Your task to perform on an android device: Go to Amazon Image 0: 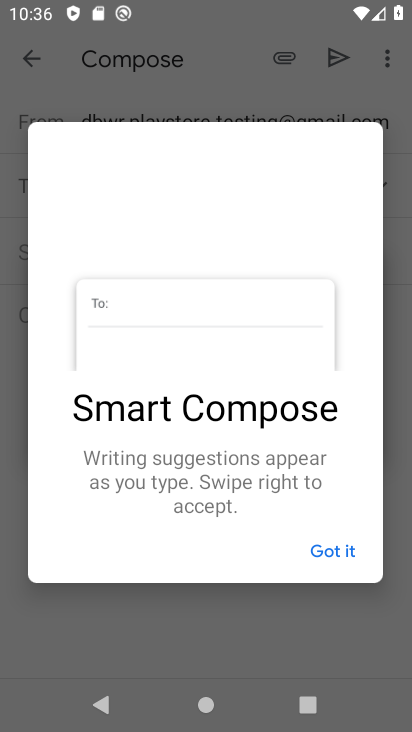
Step 0: press home button
Your task to perform on an android device: Go to Amazon Image 1: 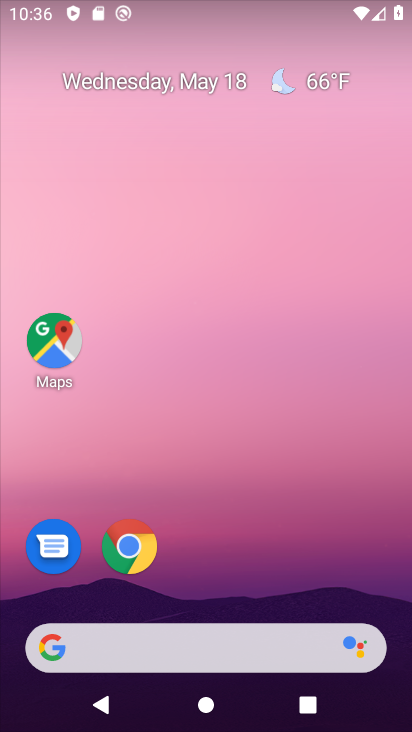
Step 1: click (128, 546)
Your task to perform on an android device: Go to Amazon Image 2: 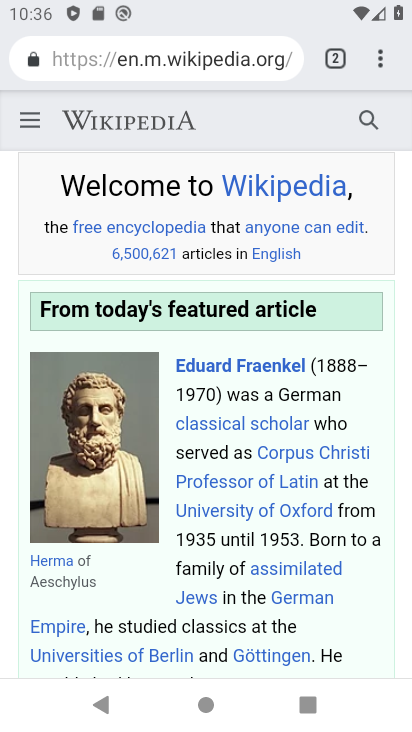
Step 2: click (380, 64)
Your task to perform on an android device: Go to Amazon Image 3: 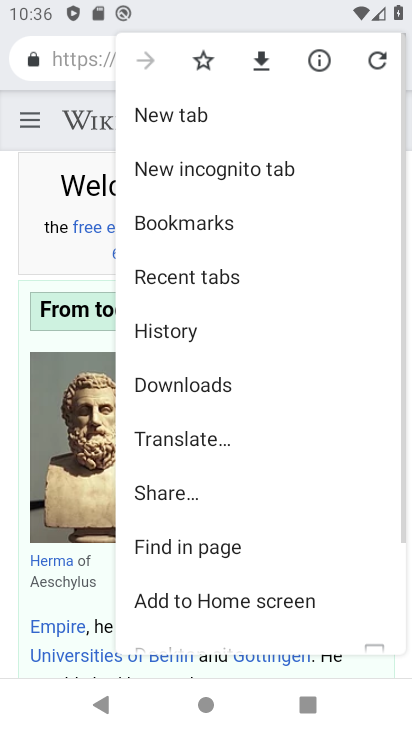
Step 3: click (182, 116)
Your task to perform on an android device: Go to Amazon Image 4: 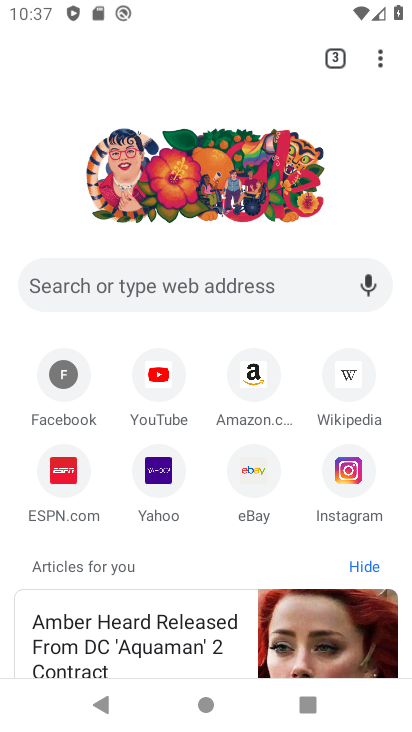
Step 4: click (140, 287)
Your task to perform on an android device: Go to Amazon Image 5: 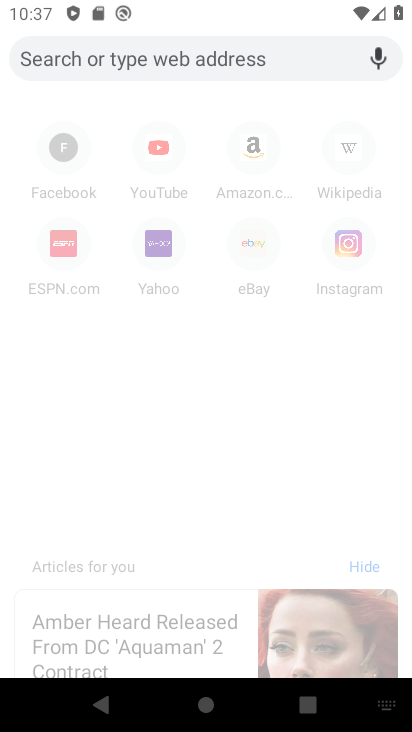
Step 5: type "Amazon"
Your task to perform on an android device: Go to Amazon Image 6: 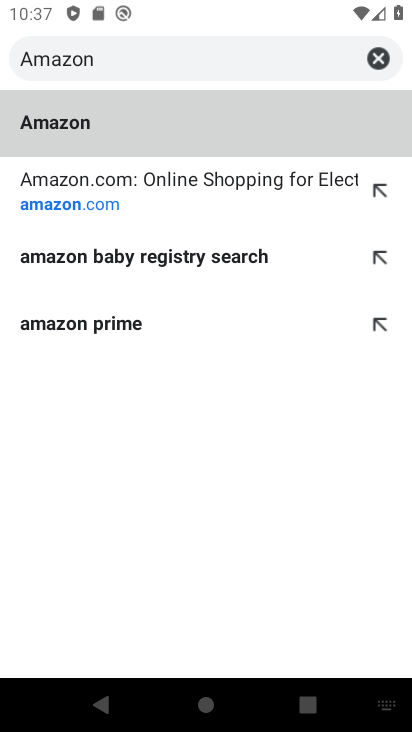
Step 6: click (75, 119)
Your task to perform on an android device: Go to Amazon Image 7: 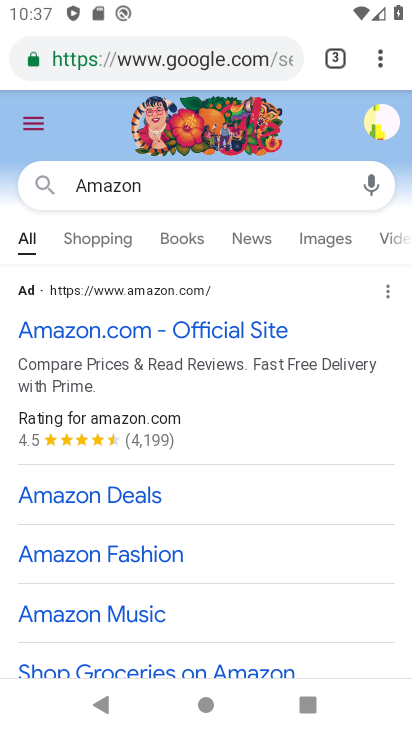
Step 7: click (125, 331)
Your task to perform on an android device: Go to Amazon Image 8: 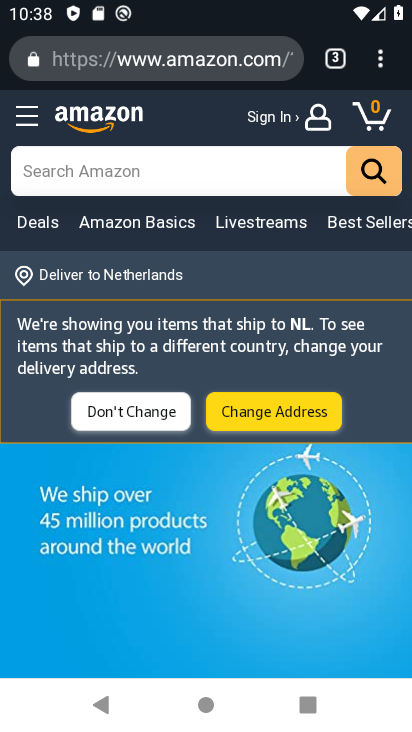
Step 8: task complete